Your task to perform on an android device: check battery use Image 0: 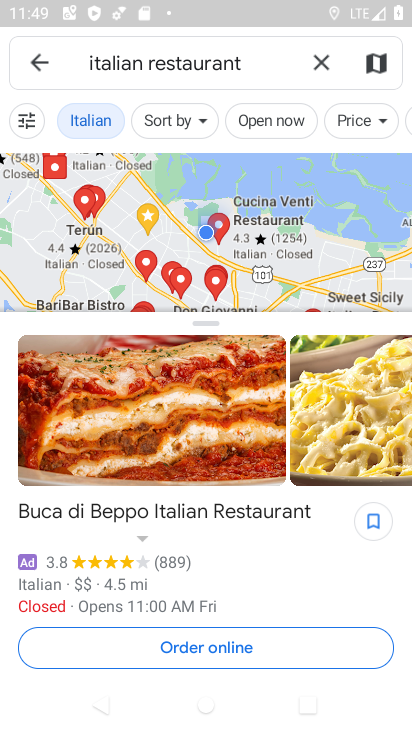
Step 0: press home button
Your task to perform on an android device: check battery use Image 1: 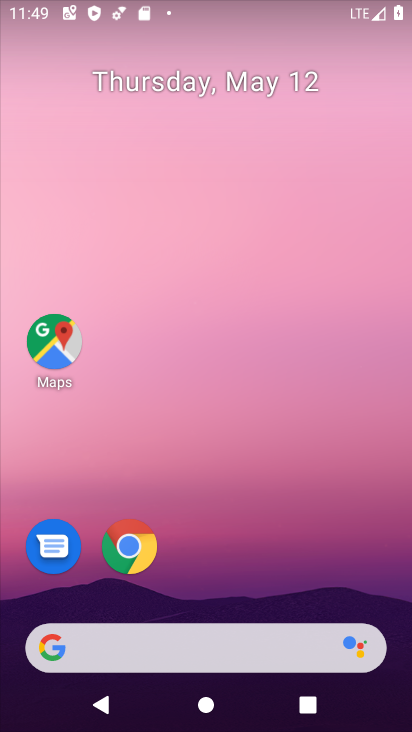
Step 1: drag from (217, 548) to (279, 99)
Your task to perform on an android device: check battery use Image 2: 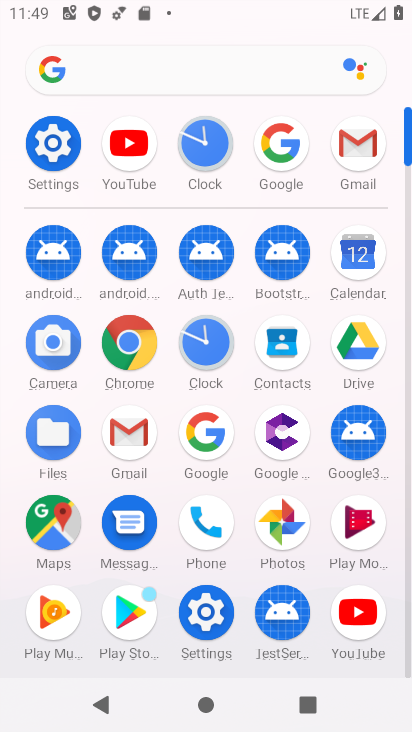
Step 2: click (65, 144)
Your task to perform on an android device: check battery use Image 3: 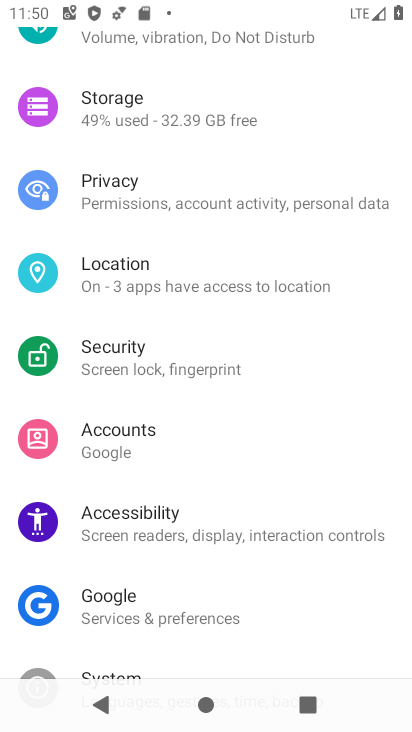
Step 3: drag from (222, 183) to (220, 461)
Your task to perform on an android device: check battery use Image 4: 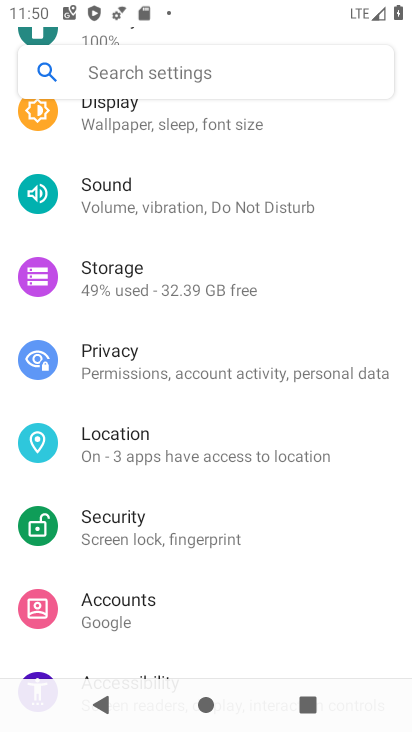
Step 4: drag from (269, 166) to (254, 502)
Your task to perform on an android device: check battery use Image 5: 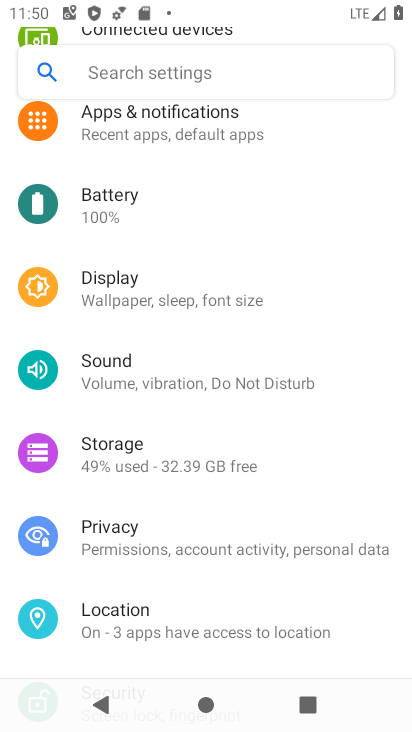
Step 5: click (150, 204)
Your task to perform on an android device: check battery use Image 6: 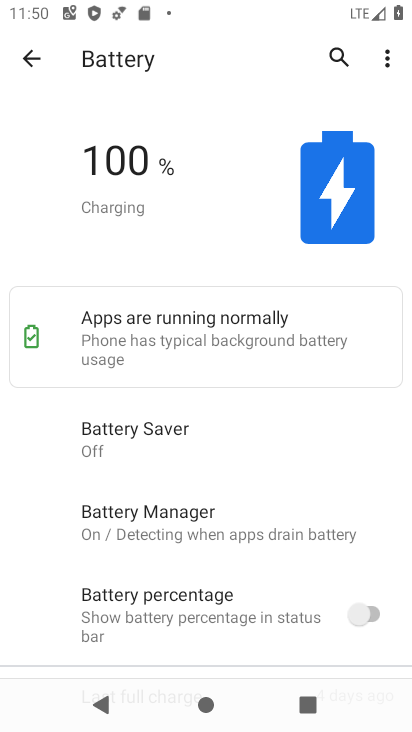
Step 6: task complete